Your task to perform on an android device: change notification settings in the gmail app Image 0: 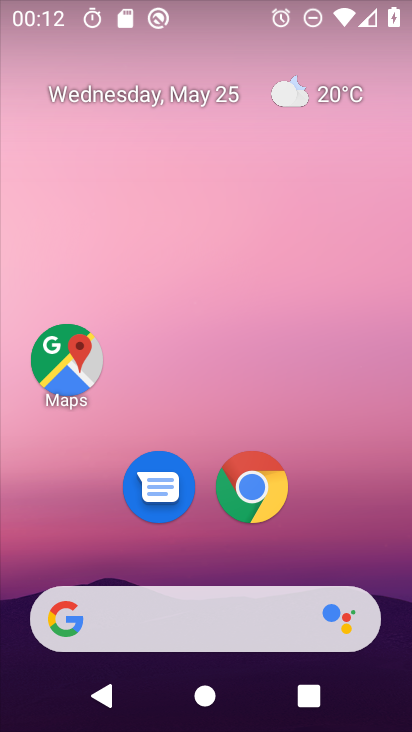
Step 0: drag from (356, 577) to (409, 3)
Your task to perform on an android device: change notification settings in the gmail app Image 1: 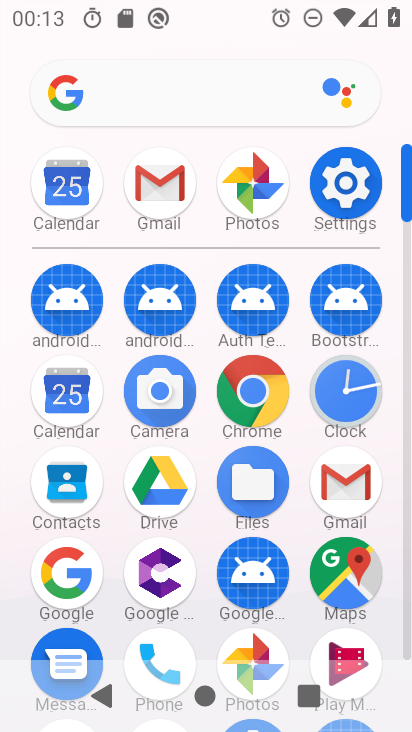
Step 1: click (154, 196)
Your task to perform on an android device: change notification settings in the gmail app Image 2: 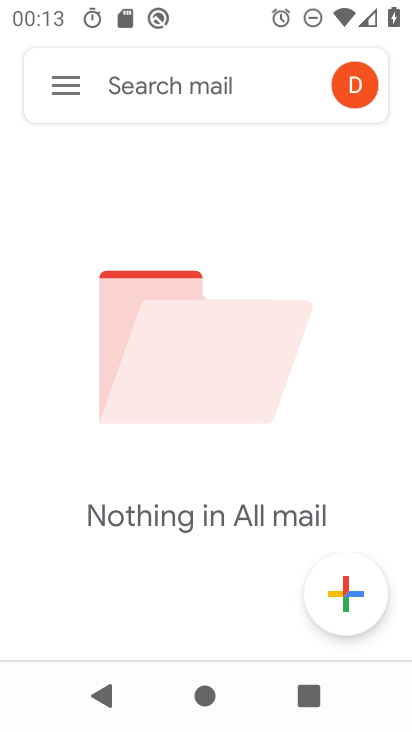
Step 2: click (78, 91)
Your task to perform on an android device: change notification settings in the gmail app Image 3: 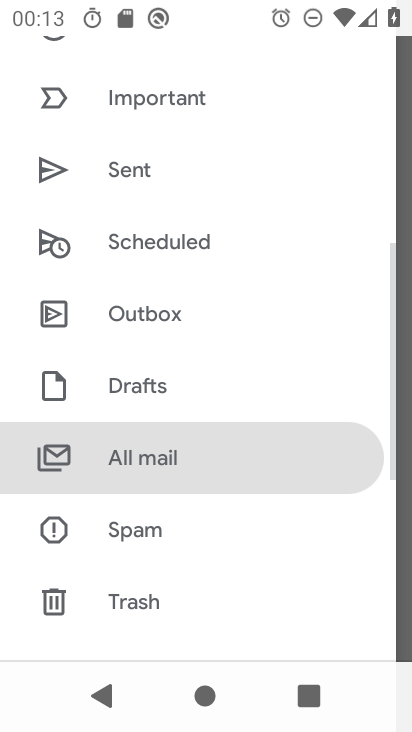
Step 3: drag from (204, 562) to (233, 117)
Your task to perform on an android device: change notification settings in the gmail app Image 4: 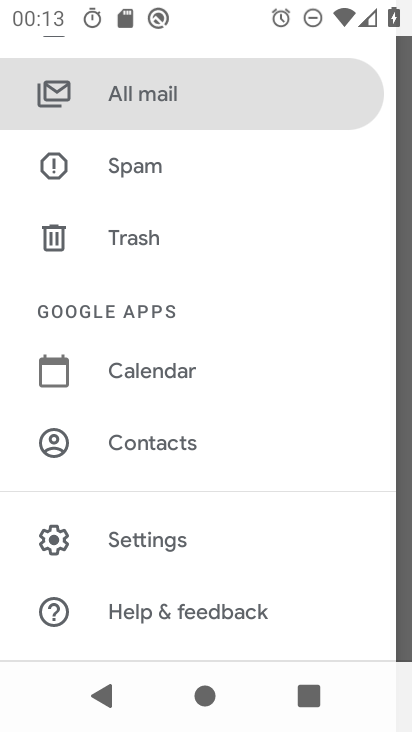
Step 4: click (158, 545)
Your task to perform on an android device: change notification settings in the gmail app Image 5: 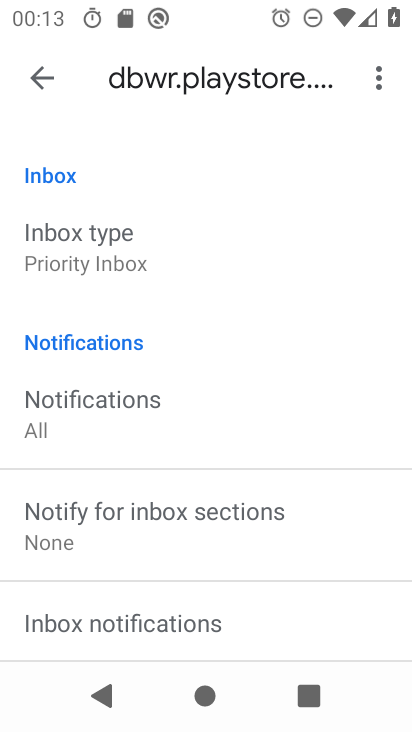
Step 5: click (50, 83)
Your task to perform on an android device: change notification settings in the gmail app Image 6: 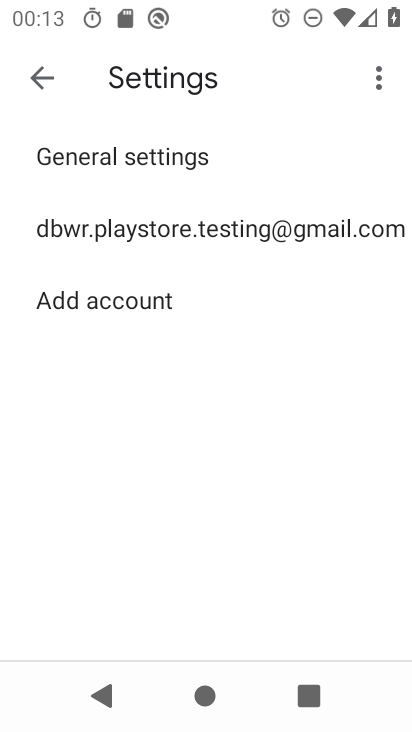
Step 6: click (76, 162)
Your task to perform on an android device: change notification settings in the gmail app Image 7: 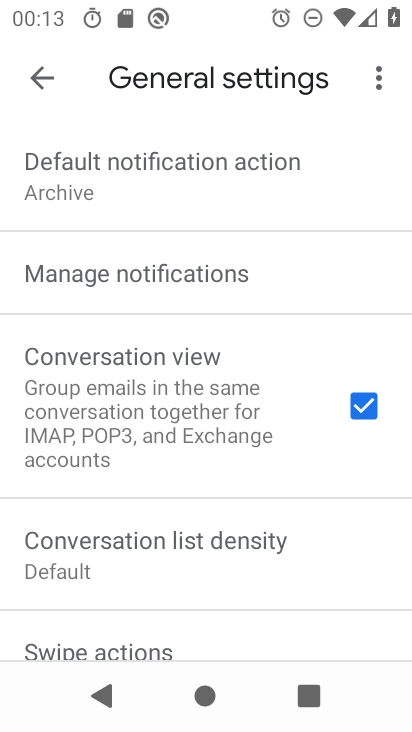
Step 7: click (114, 279)
Your task to perform on an android device: change notification settings in the gmail app Image 8: 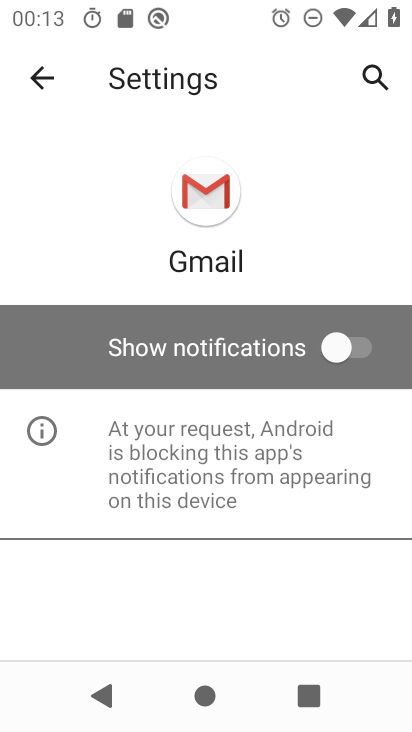
Step 8: click (349, 352)
Your task to perform on an android device: change notification settings in the gmail app Image 9: 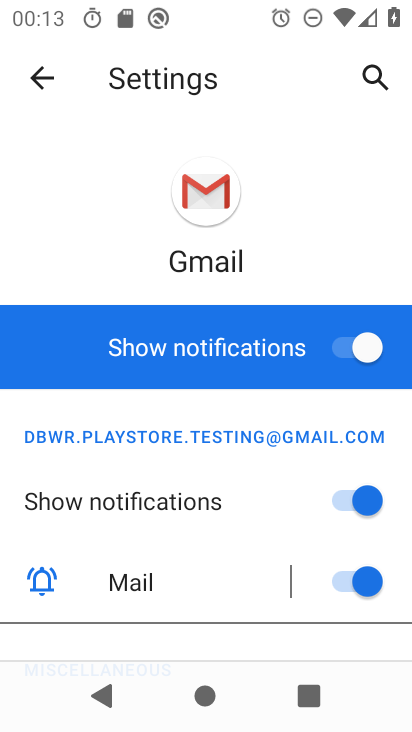
Step 9: task complete